Your task to perform on an android device: Turn on the flashlight Image 0: 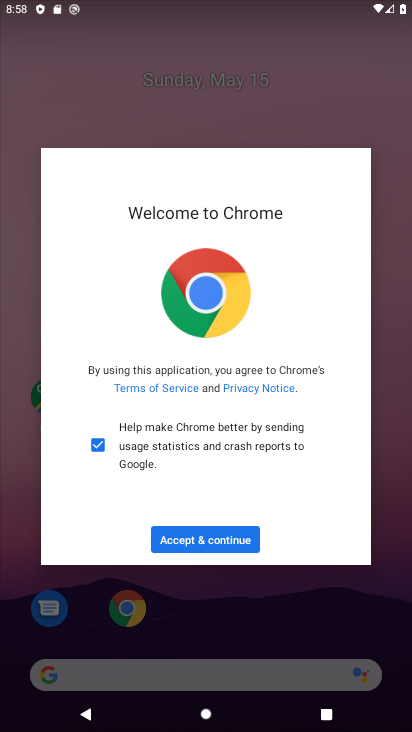
Step 0: press home button
Your task to perform on an android device: Turn on the flashlight Image 1: 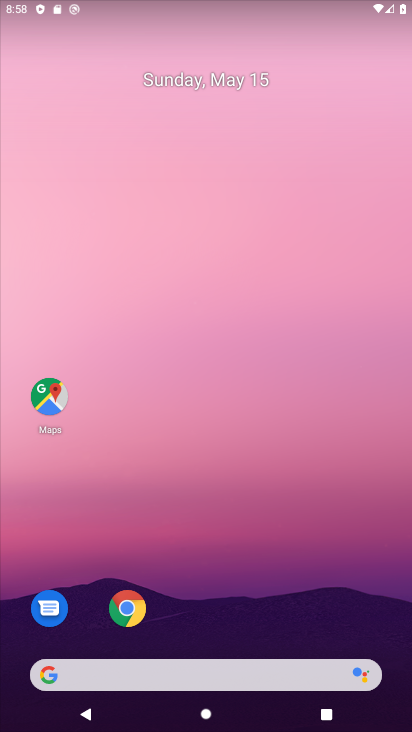
Step 1: drag from (340, 481) to (357, 5)
Your task to perform on an android device: Turn on the flashlight Image 2: 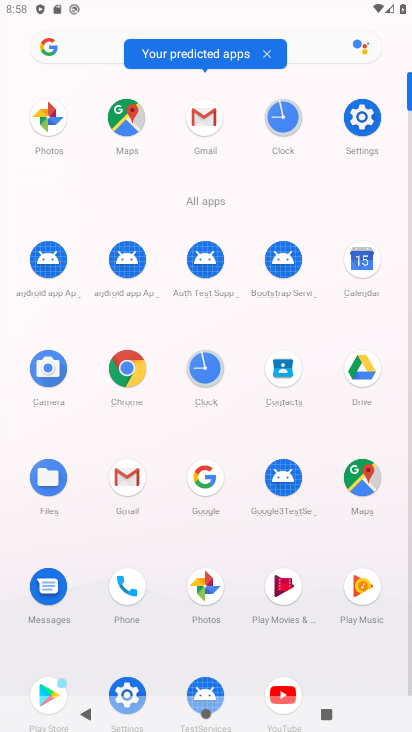
Step 2: click (350, 124)
Your task to perform on an android device: Turn on the flashlight Image 3: 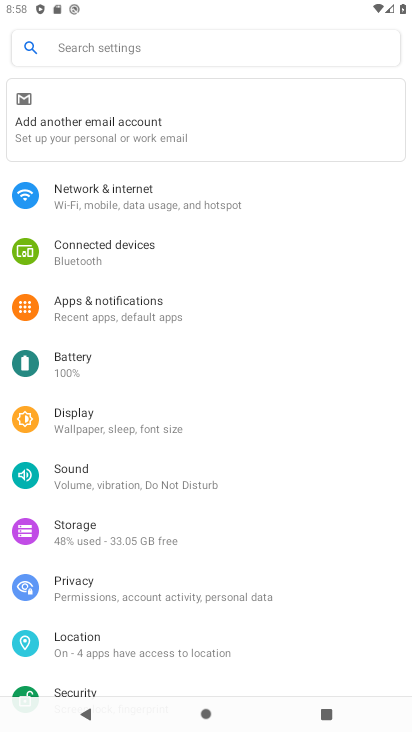
Step 3: task complete